Your task to perform on an android device: create a new album in the google photos Image 0: 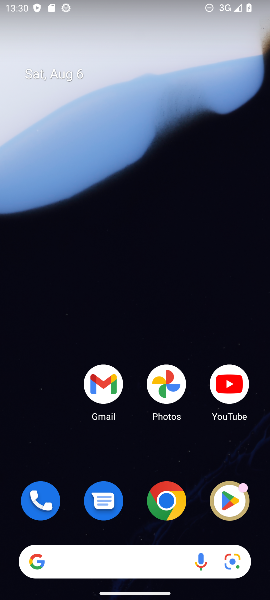
Step 0: click (170, 380)
Your task to perform on an android device: create a new album in the google photos Image 1: 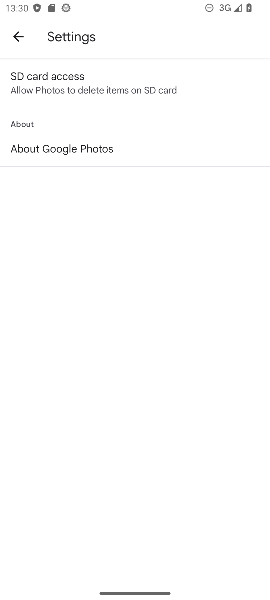
Step 1: click (15, 35)
Your task to perform on an android device: create a new album in the google photos Image 2: 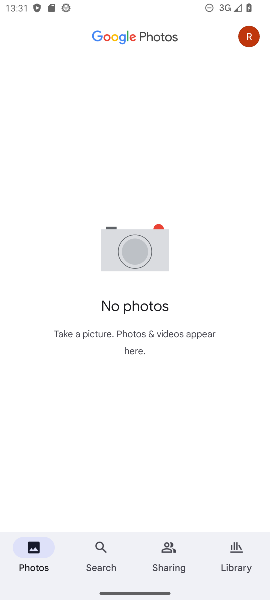
Step 2: click (244, 563)
Your task to perform on an android device: create a new album in the google photos Image 3: 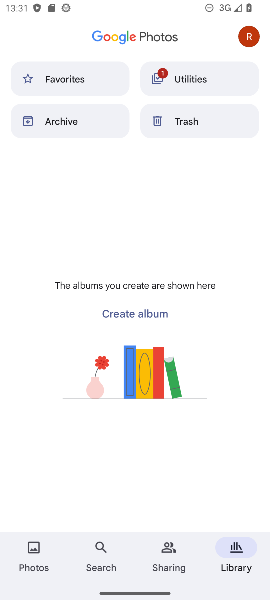
Step 3: click (26, 562)
Your task to perform on an android device: create a new album in the google photos Image 4: 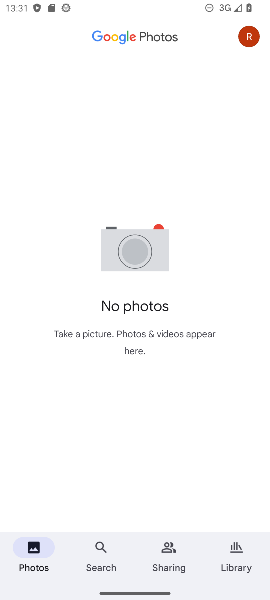
Step 4: task complete